Your task to perform on an android device: read, delete, or share a saved page in the chrome app Image 0: 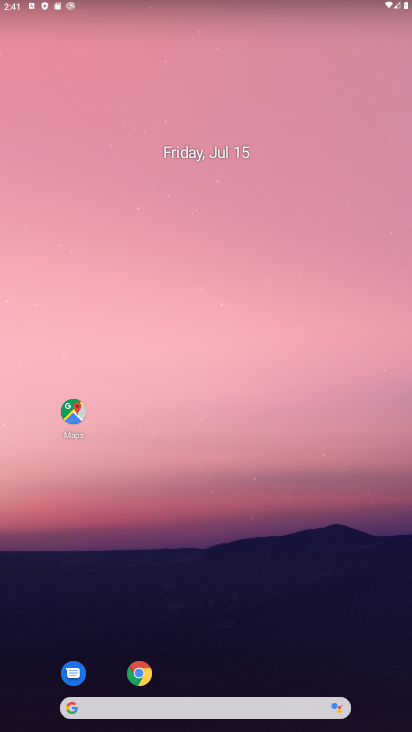
Step 0: click (137, 674)
Your task to perform on an android device: read, delete, or share a saved page in the chrome app Image 1: 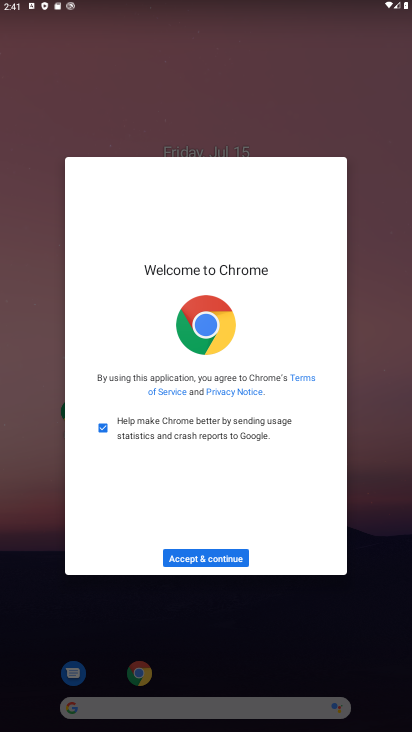
Step 1: click (203, 557)
Your task to perform on an android device: read, delete, or share a saved page in the chrome app Image 2: 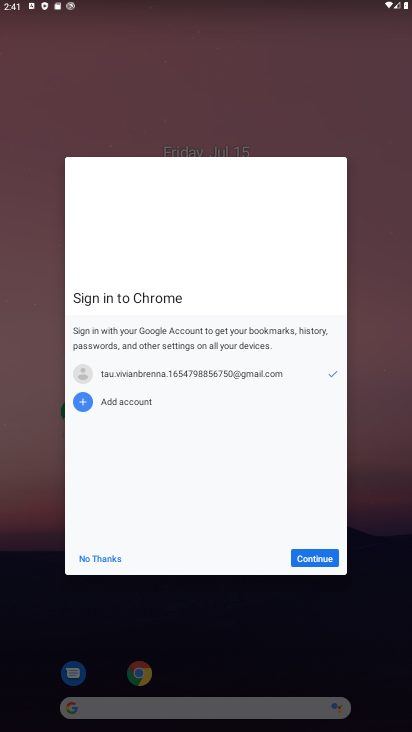
Step 2: click (314, 558)
Your task to perform on an android device: read, delete, or share a saved page in the chrome app Image 3: 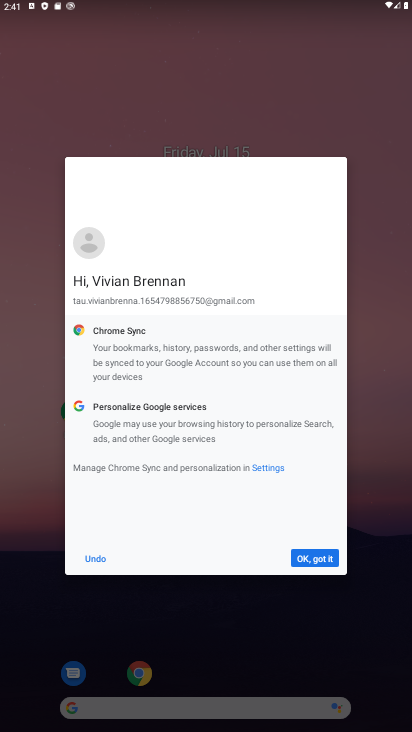
Step 3: click (314, 561)
Your task to perform on an android device: read, delete, or share a saved page in the chrome app Image 4: 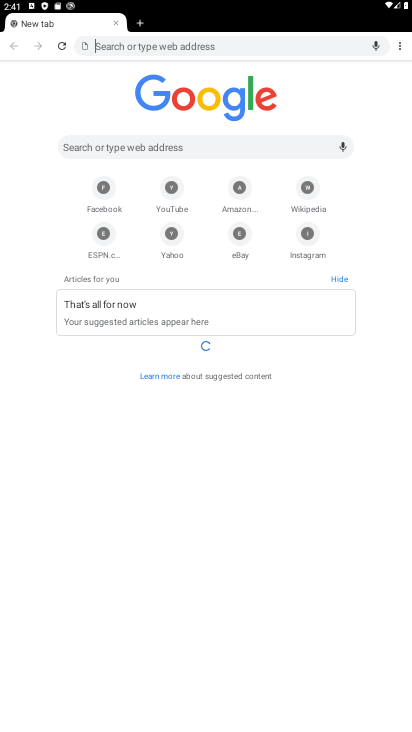
Step 4: click (396, 48)
Your task to perform on an android device: read, delete, or share a saved page in the chrome app Image 5: 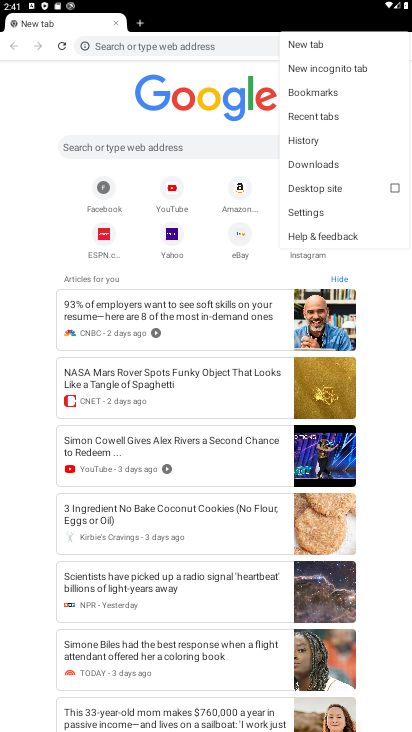
Step 5: click (308, 156)
Your task to perform on an android device: read, delete, or share a saved page in the chrome app Image 6: 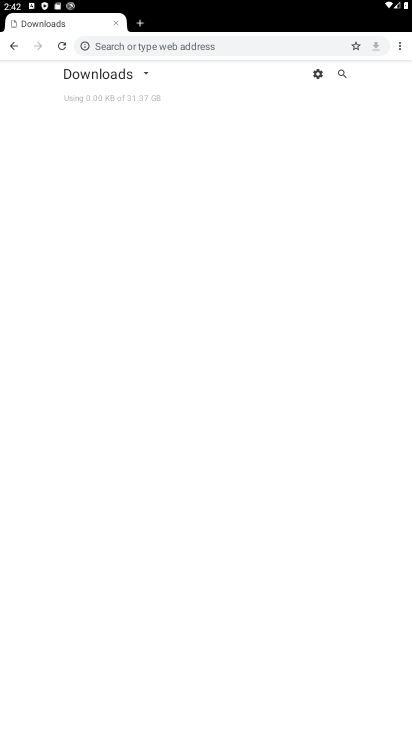
Step 6: click (139, 71)
Your task to perform on an android device: read, delete, or share a saved page in the chrome app Image 7: 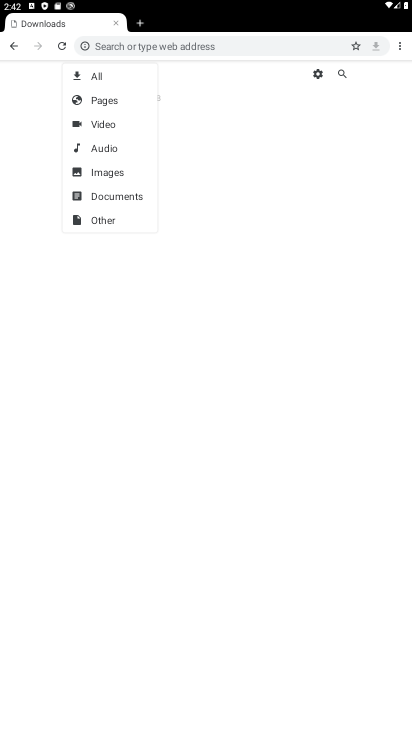
Step 7: click (97, 97)
Your task to perform on an android device: read, delete, or share a saved page in the chrome app Image 8: 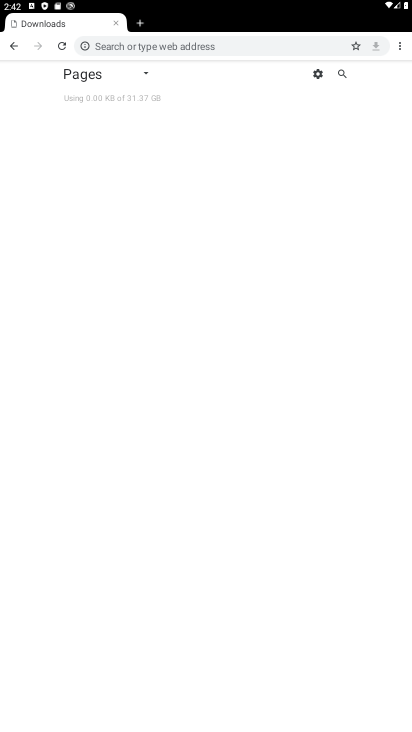
Step 8: task complete